Your task to perform on an android device: Open Google Chrome and click the shortcut for Amazon.com Image 0: 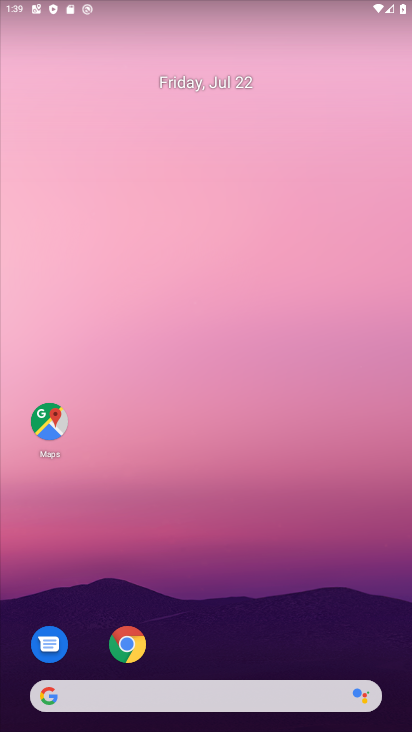
Step 0: drag from (266, 654) to (246, 360)
Your task to perform on an android device: Open Google Chrome and click the shortcut for Amazon.com Image 1: 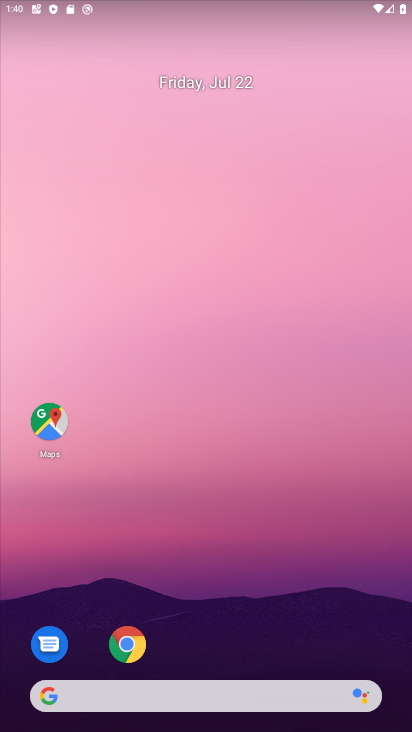
Step 1: drag from (217, 610) to (215, 326)
Your task to perform on an android device: Open Google Chrome and click the shortcut for Amazon.com Image 2: 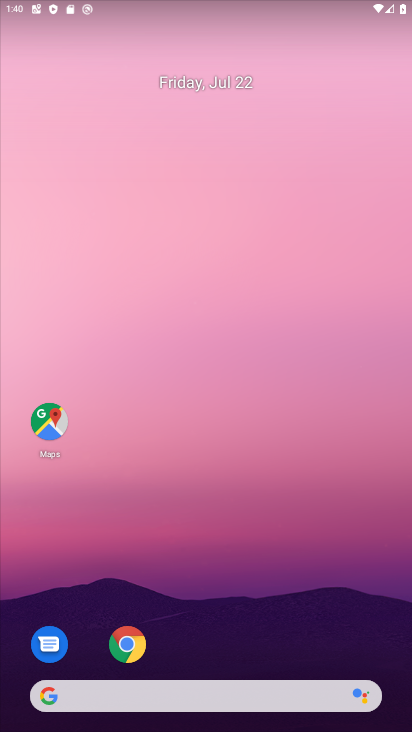
Step 2: drag from (200, 659) to (200, 336)
Your task to perform on an android device: Open Google Chrome and click the shortcut for Amazon.com Image 3: 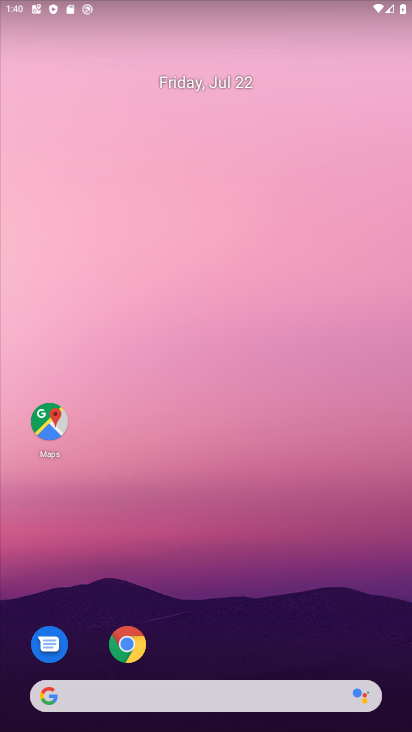
Step 3: click (121, 660)
Your task to perform on an android device: Open Google Chrome and click the shortcut for Amazon.com Image 4: 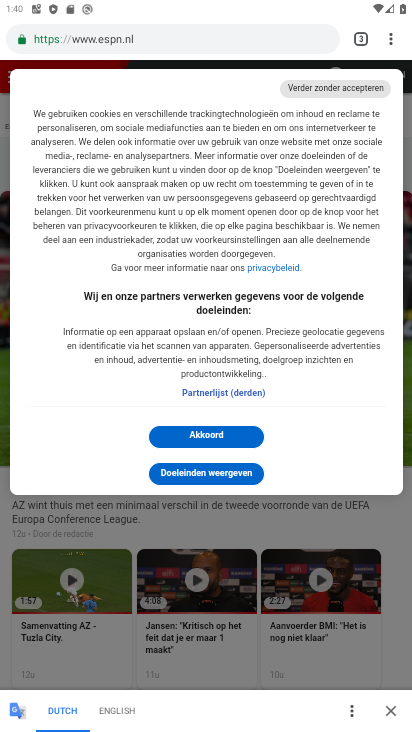
Step 4: click (397, 44)
Your task to perform on an android device: Open Google Chrome and click the shortcut for Amazon.com Image 5: 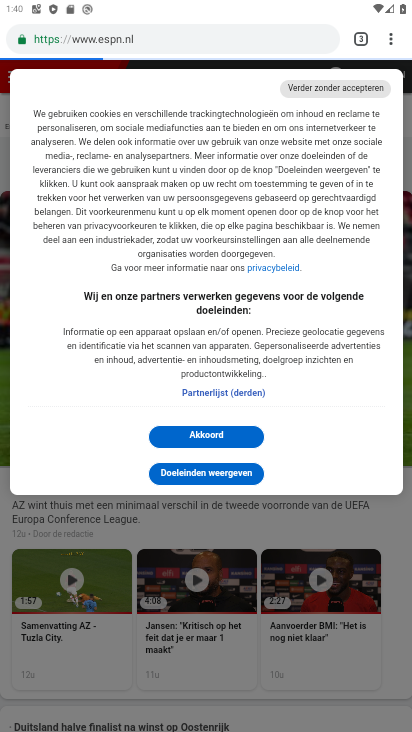
Step 5: click (392, 29)
Your task to perform on an android device: Open Google Chrome and click the shortcut for Amazon.com Image 6: 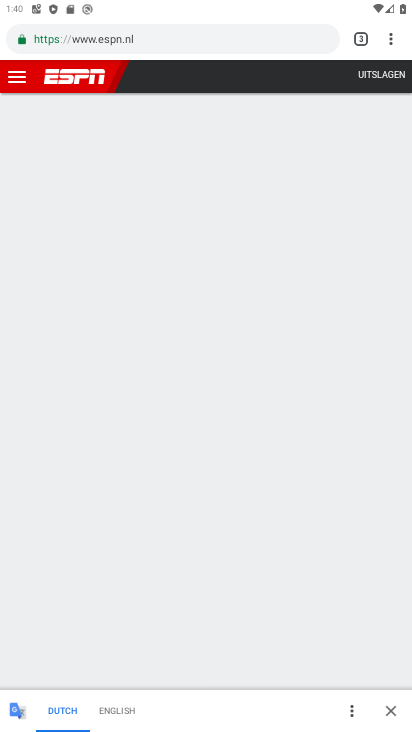
Step 6: click (393, 44)
Your task to perform on an android device: Open Google Chrome and click the shortcut for Amazon.com Image 7: 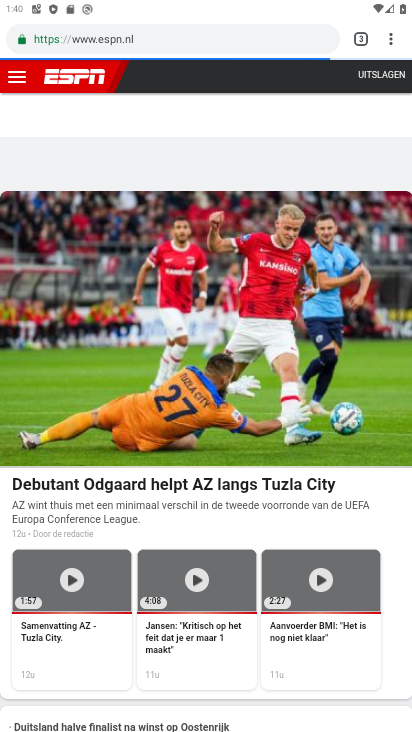
Step 7: click (393, 44)
Your task to perform on an android device: Open Google Chrome and click the shortcut for Amazon.com Image 8: 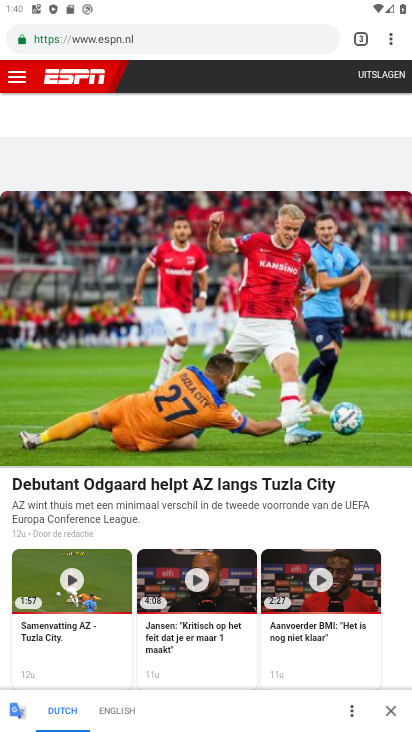
Step 8: click (393, 44)
Your task to perform on an android device: Open Google Chrome and click the shortcut for Amazon.com Image 9: 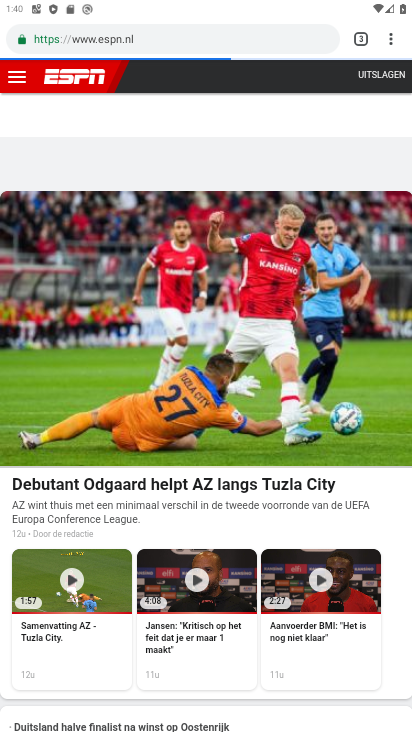
Step 9: click (393, 44)
Your task to perform on an android device: Open Google Chrome and click the shortcut for Amazon.com Image 10: 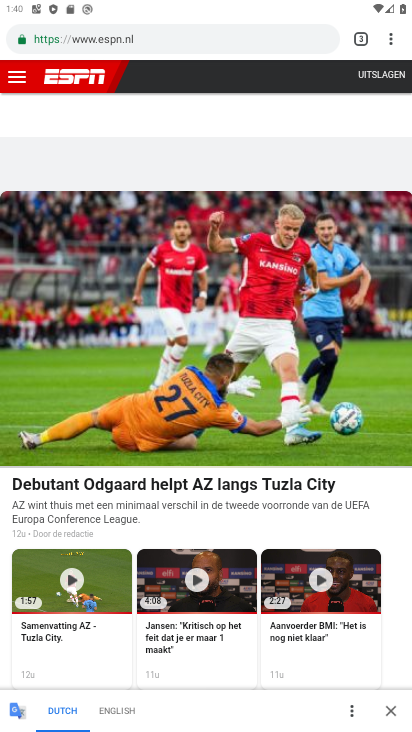
Step 10: click (393, 31)
Your task to perform on an android device: Open Google Chrome and click the shortcut for Amazon.com Image 11: 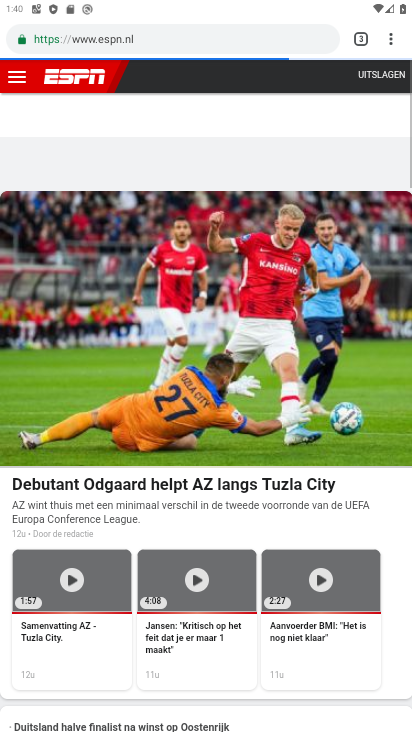
Step 11: click (393, 33)
Your task to perform on an android device: Open Google Chrome and click the shortcut for Amazon.com Image 12: 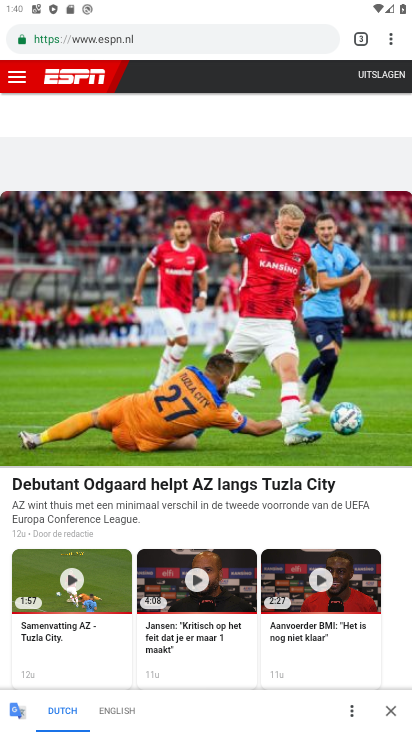
Step 12: click (393, 41)
Your task to perform on an android device: Open Google Chrome and click the shortcut for Amazon.com Image 13: 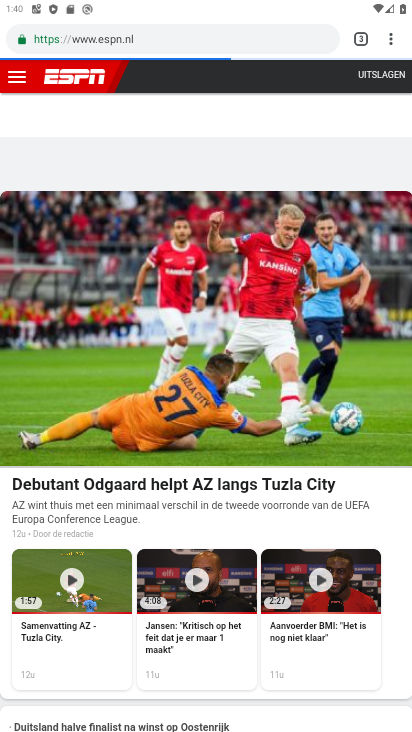
Step 13: click (393, 41)
Your task to perform on an android device: Open Google Chrome and click the shortcut for Amazon.com Image 14: 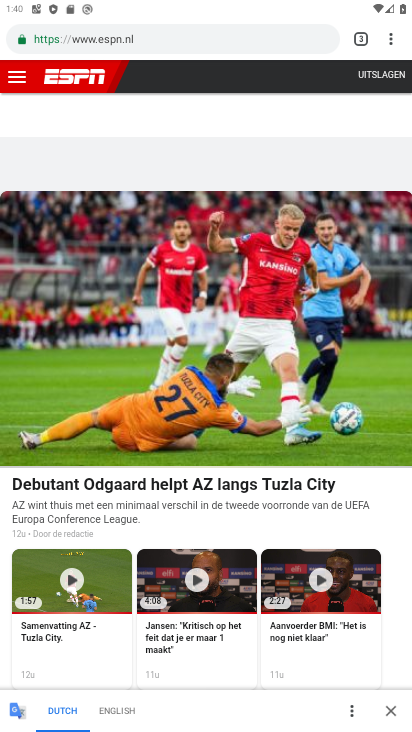
Step 14: click (387, 44)
Your task to perform on an android device: Open Google Chrome and click the shortcut for Amazon.com Image 15: 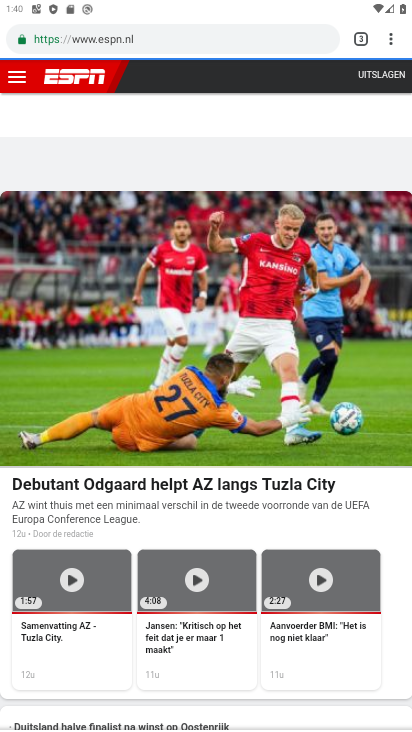
Step 15: click (389, 32)
Your task to perform on an android device: Open Google Chrome and click the shortcut for Amazon.com Image 16: 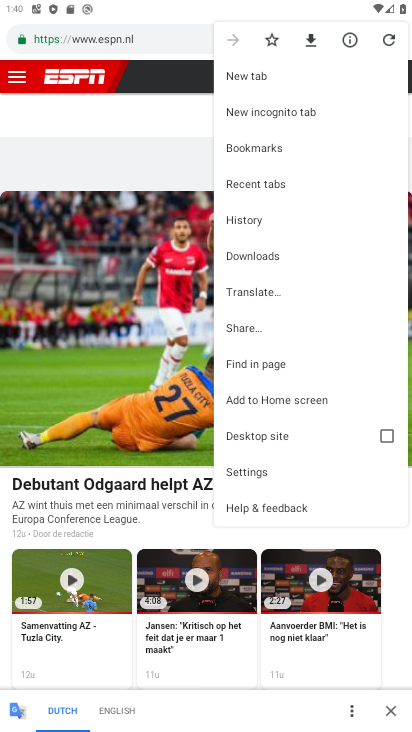
Step 16: click (257, 76)
Your task to perform on an android device: Open Google Chrome and click the shortcut for Amazon.com Image 17: 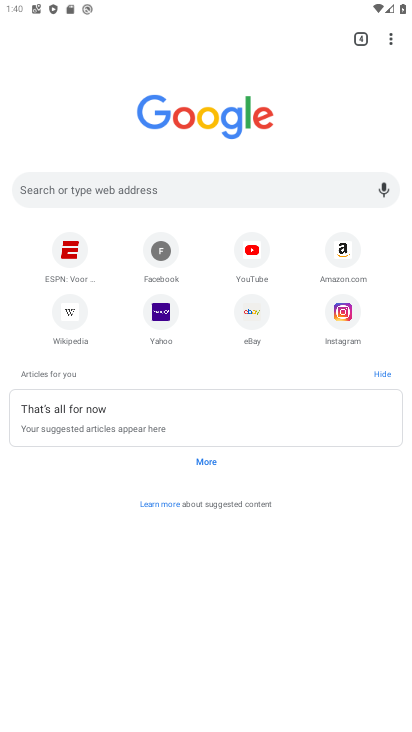
Step 17: click (338, 244)
Your task to perform on an android device: Open Google Chrome and click the shortcut for Amazon.com Image 18: 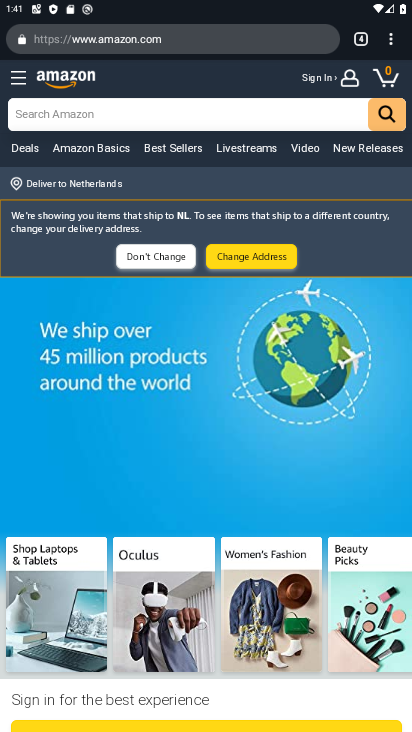
Step 18: task complete